Your task to perform on an android device: Open Wikipedia Image 0: 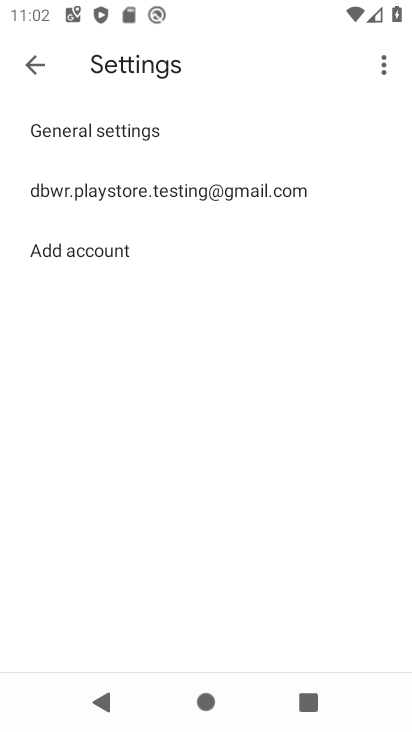
Step 0: press home button
Your task to perform on an android device: Open Wikipedia Image 1: 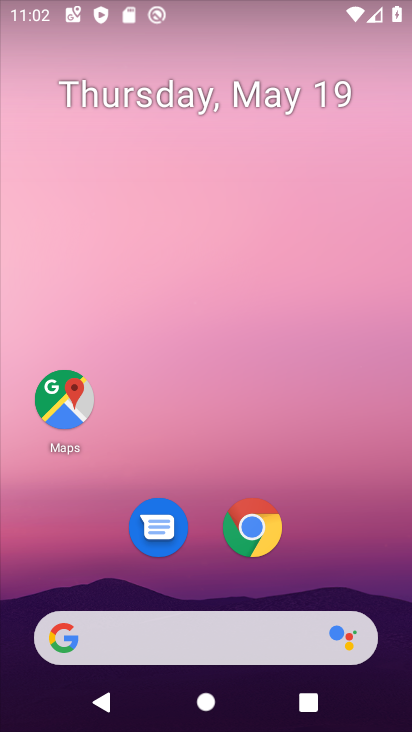
Step 1: click (273, 531)
Your task to perform on an android device: Open Wikipedia Image 2: 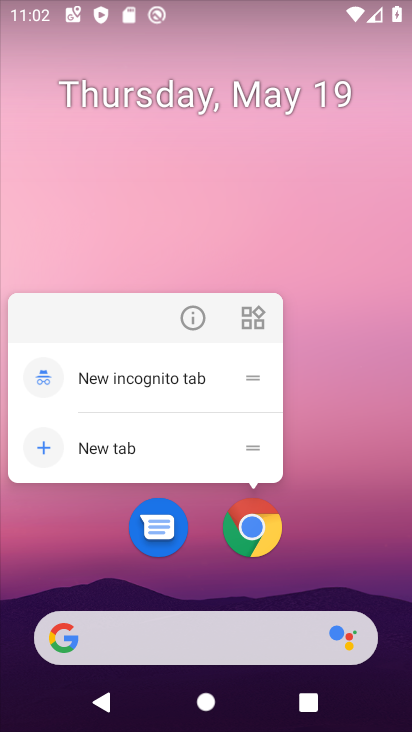
Step 2: click (254, 540)
Your task to perform on an android device: Open Wikipedia Image 3: 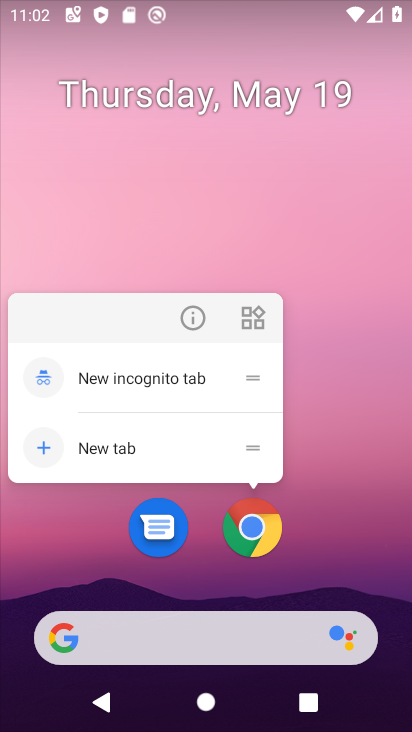
Step 3: click (251, 573)
Your task to perform on an android device: Open Wikipedia Image 4: 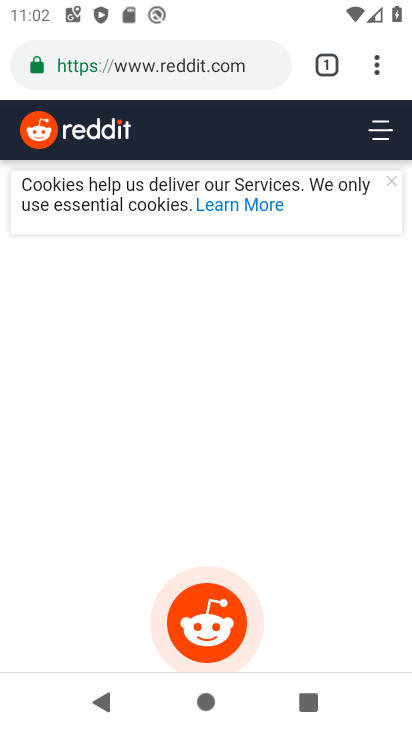
Step 4: click (197, 64)
Your task to perform on an android device: Open Wikipedia Image 5: 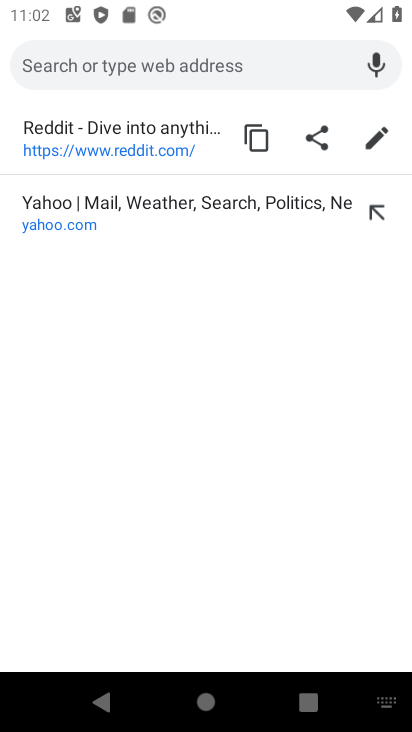
Step 5: type "wikipedia"
Your task to perform on an android device: Open Wikipedia Image 6: 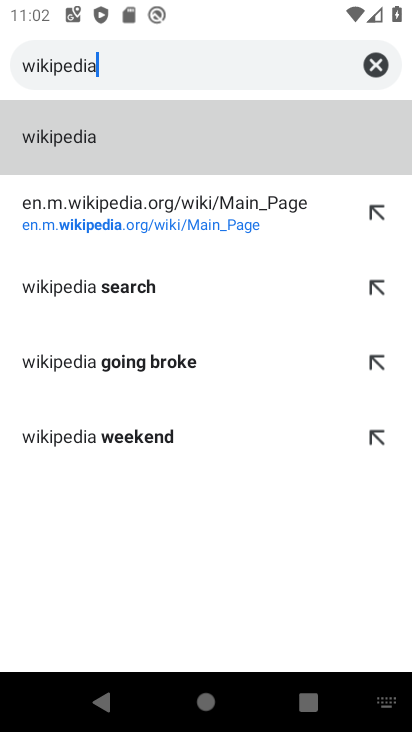
Step 6: click (77, 134)
Your task to perform on an android device: Open Wikipedia Image 7: 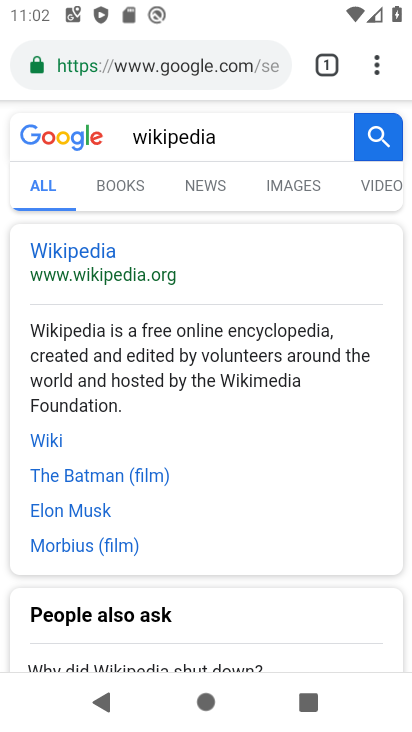
Step 7: task complete